Your task to perform on an android device: Do I have any events today? Image 0: 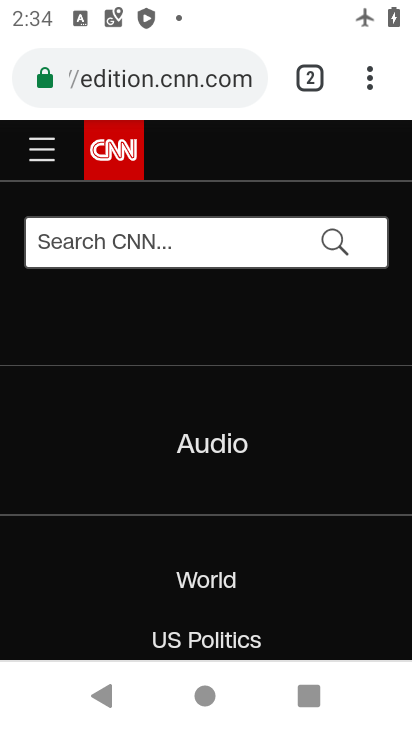
Step 0: press home button
Your task to perform on an android device: Do I have any events today? Image 1: 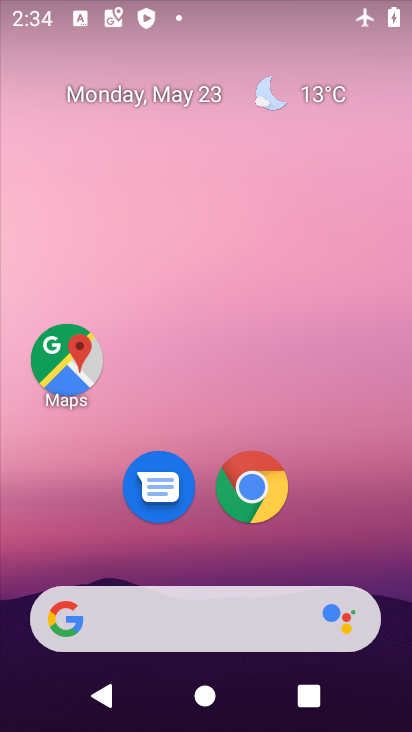
Step 1: drag from (399, 571) to (333, 56)
Your task to perform on an android device: Do I have any events today? Image 2: 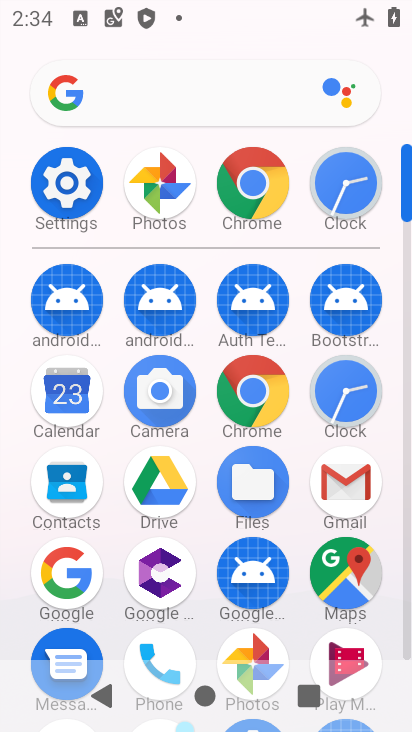
Step 2: click (65, 391)
Your task to perform on an android device: Do I have any events today? Image 3: 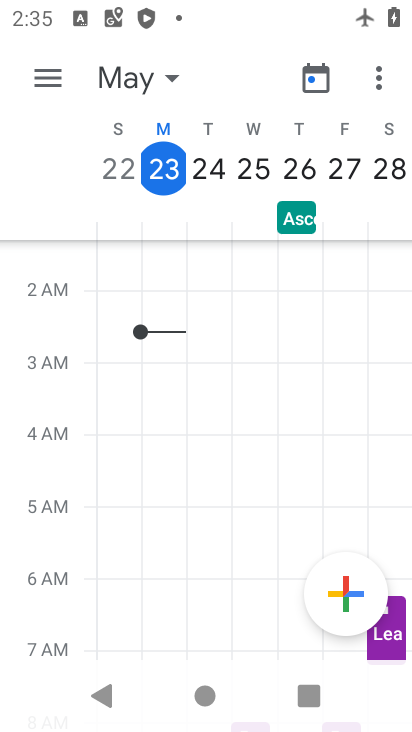
Step 3: click (44, 73)
Your task to perform on an android device: Do I have any events today? Image 4: 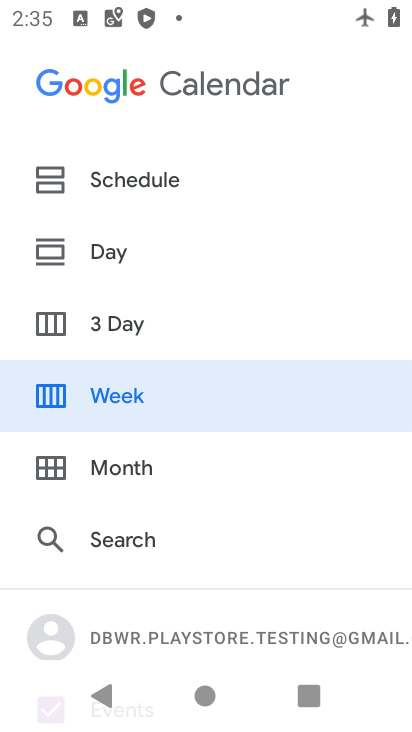
Step 4: click (94, 248)
Your task to perform on an android device: Do I have any events today? Image 5: 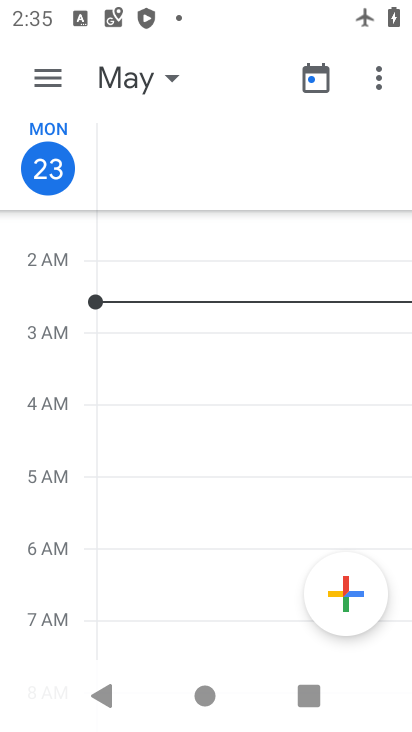
Step 5: task complete